Your task to perform on an android device: Go to location settings Image 0: 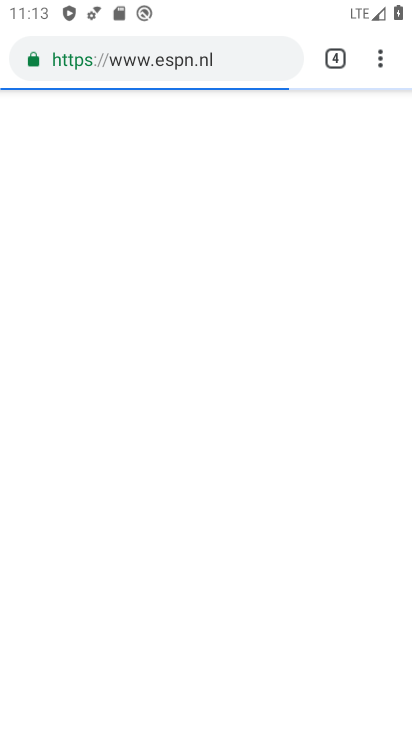
Step 0: press home button
Your task to perform on an android device: Go to location settings Image 1: 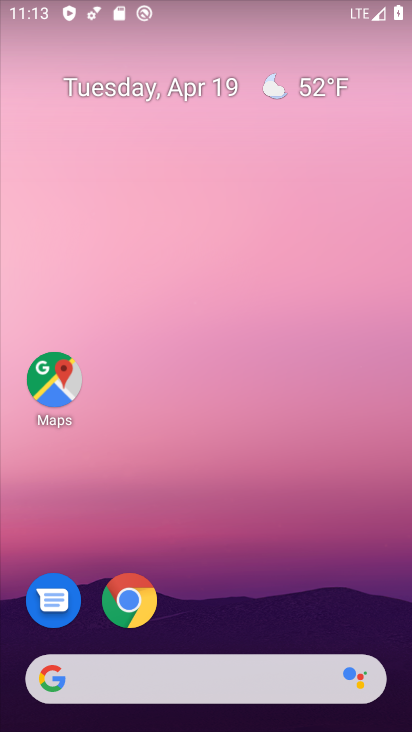
Step 1: drag from (248, 638) to (250, 60)
Your task to perform on an android device: Go to location settings Image 2: 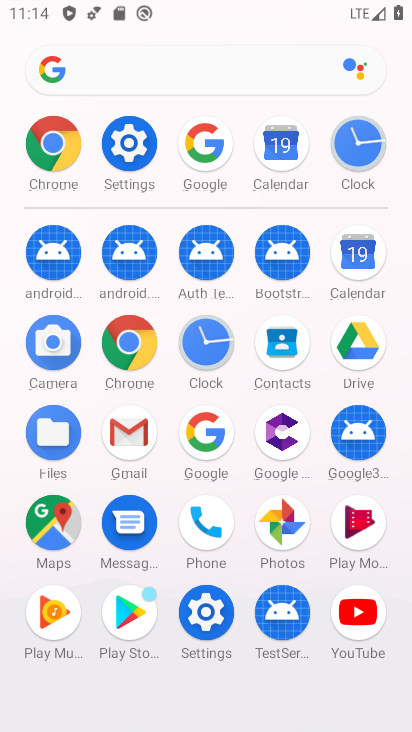
Step 2: click (127, 154)
Your task to perform on an android device: Go to location settings Image 3: 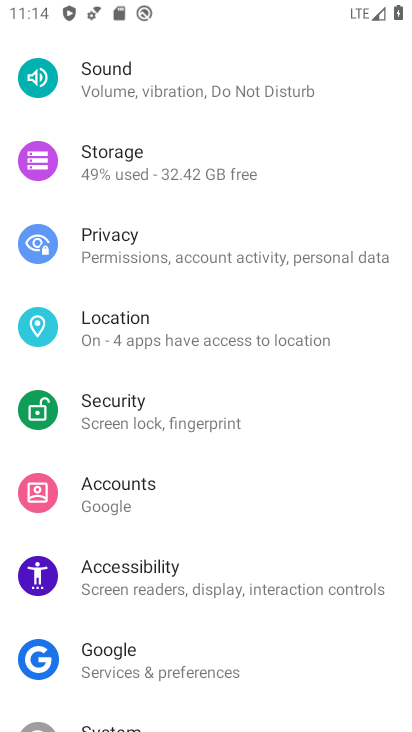
Step 3: click (127, 328)
Your task to perform on an android device: Go to location settings Image 4: 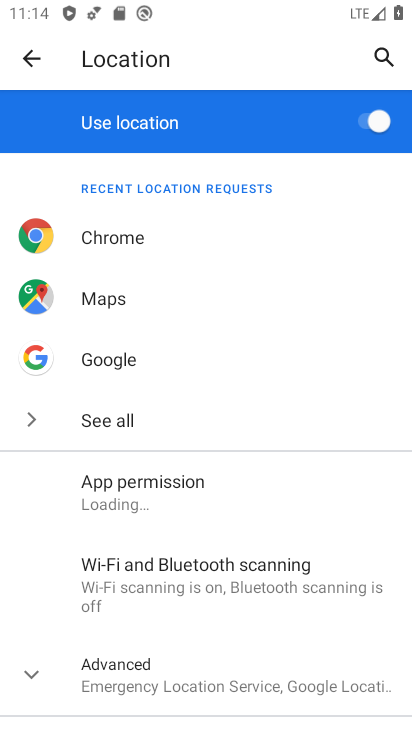
Step 4: click (331, 122)
Your task to perform on an android device: Go to location settings Image 5: 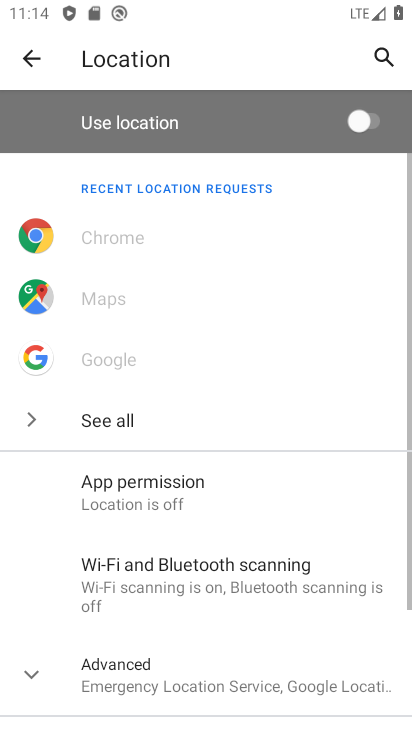
Step 5: task complete